Your task to perform on an android device: open app "Nova Launcher" Image 0: 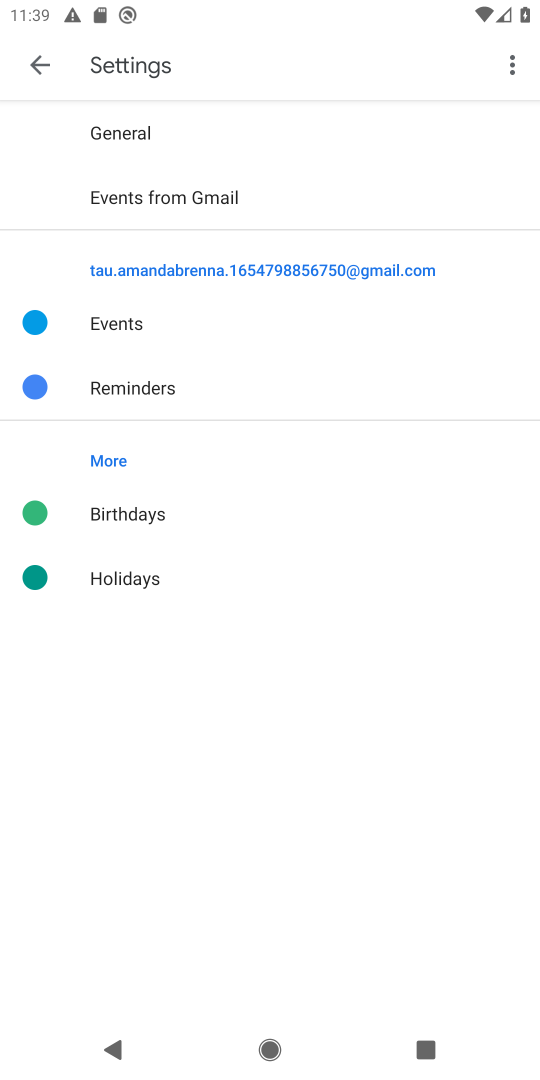
Step 0: press home button
Your task to perform on an android device: open app "Nova Launcher" Image 1: 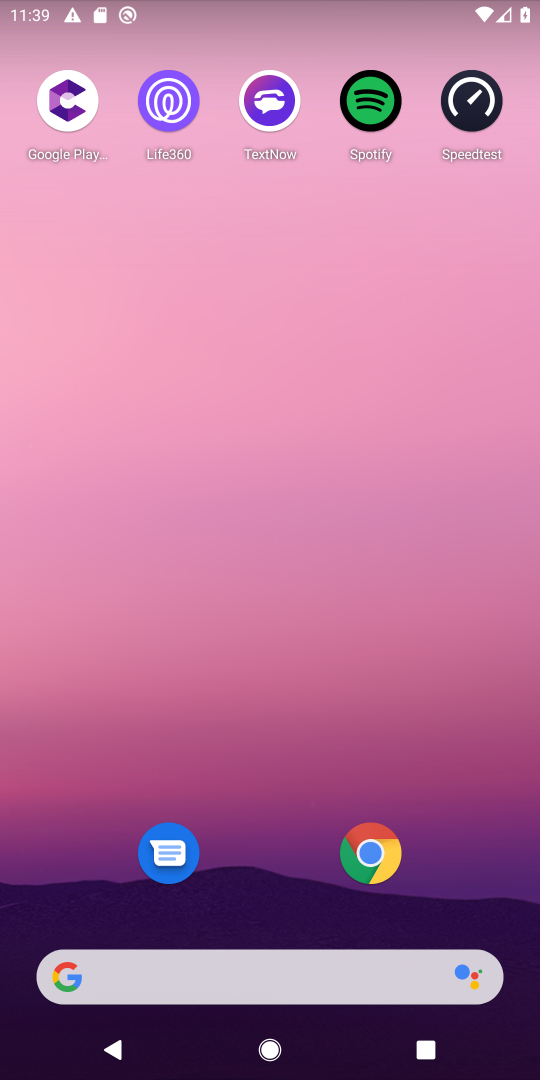
Step 1: drag from (236, 926) to (239, 315)
Your task to perform on an android device: open app "Nova Launcher" Image 2: 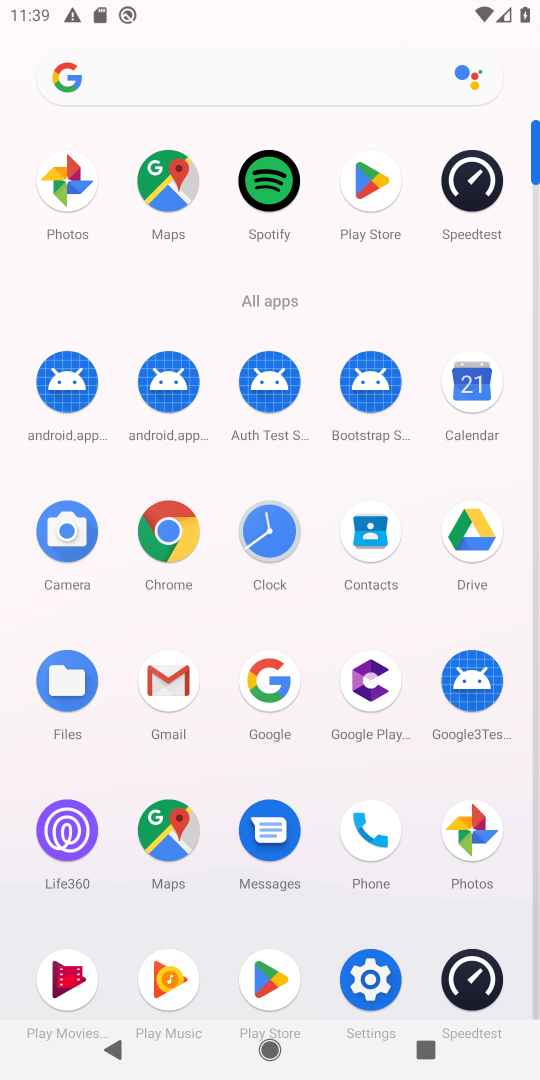
Step 2: click (366, 177)
Your task to perform on an android device: open app "Nova Launcher" Image 3: 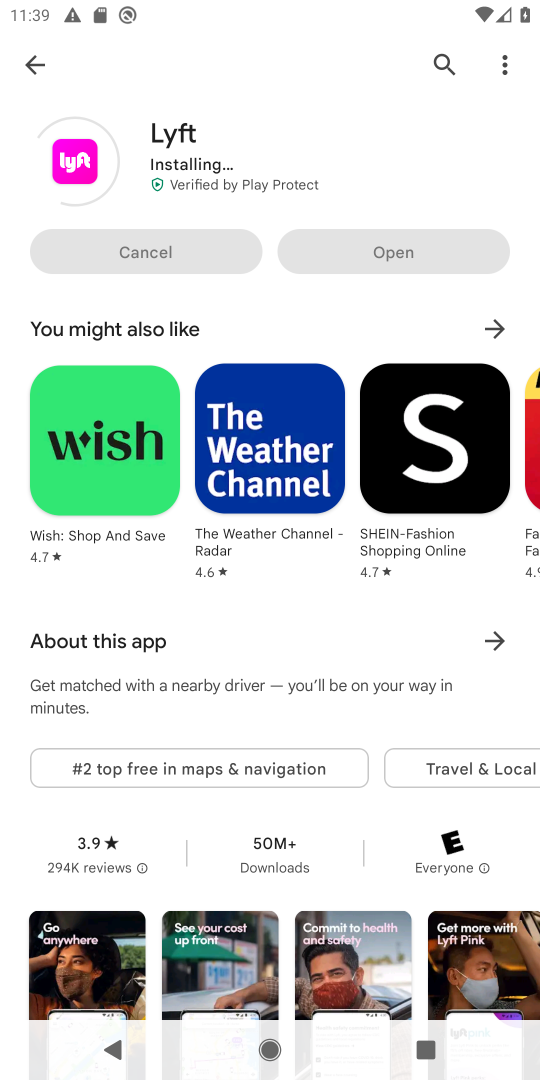
Step 3: click (42, 63)
Your task to perform on an android device: open app "Nova Launcher" Image 4: 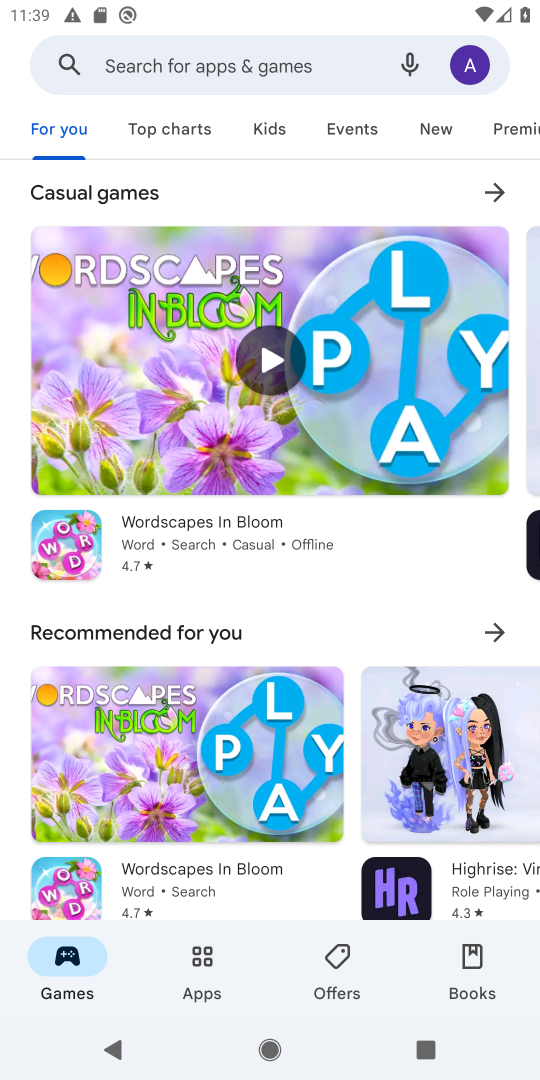
Step 4: click (226, 56)
Your task to perform on an android device: open app "Nova Launcher" Image 5: 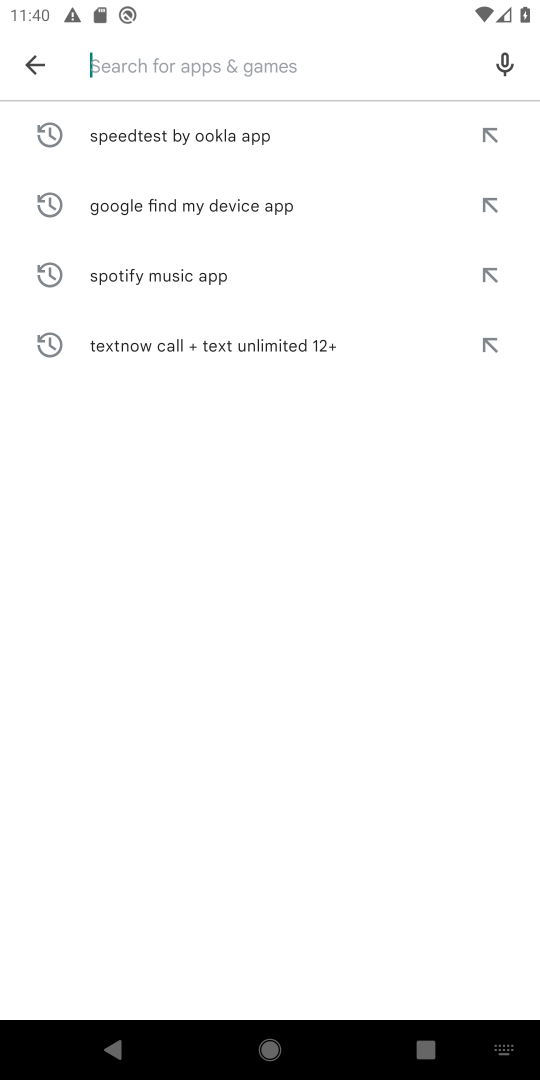
Step 5: click (207, 49)
Your task to perform on an android device: open app "Nova Launcher" Image 6: 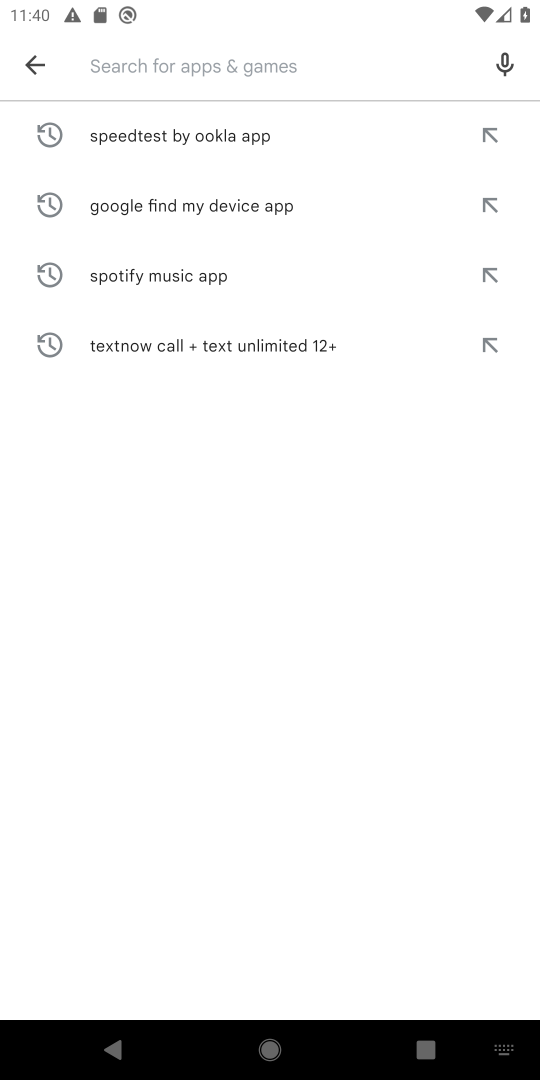
Step 6: type "Nova Launcher "
Your task to perform on an android device: open app "Nova Launcher" Image 7: 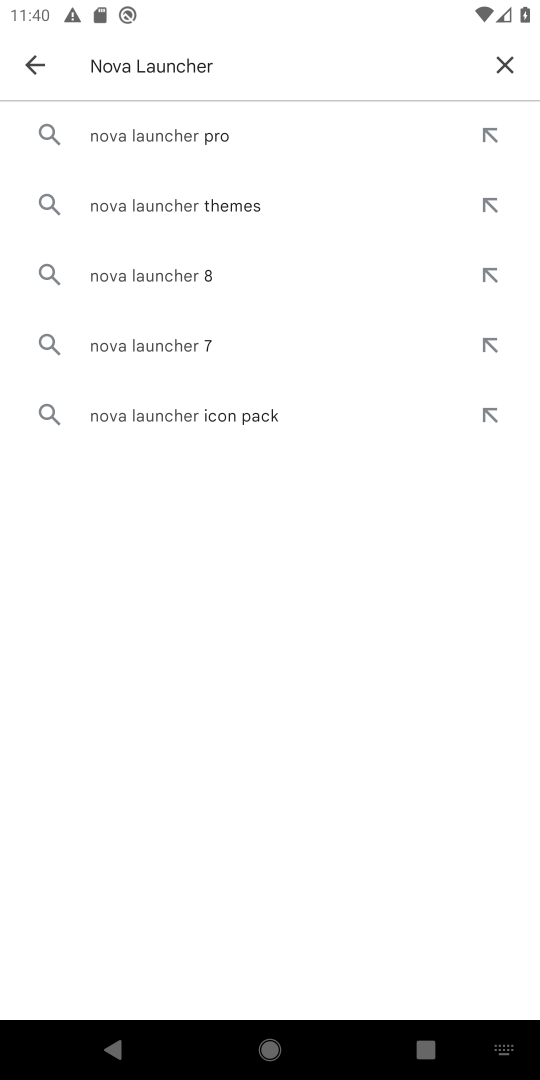
Step 7: click (143, 133)
Your task to perform on an android device: open app "Nova Launcher" Image 8: 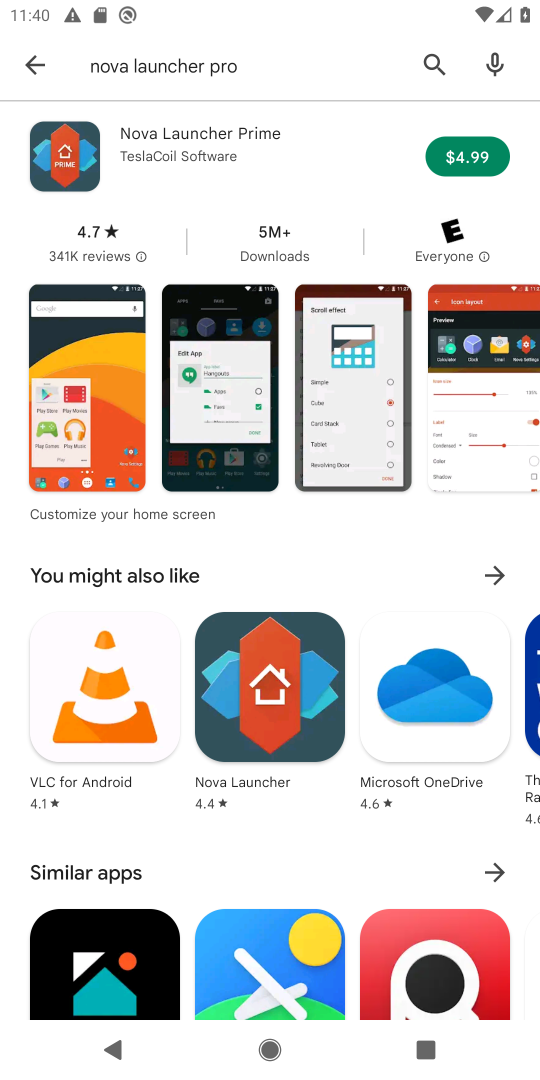
Step 8: task complete